Your task to perform on an android device: open chrome privacy settings Image 0: 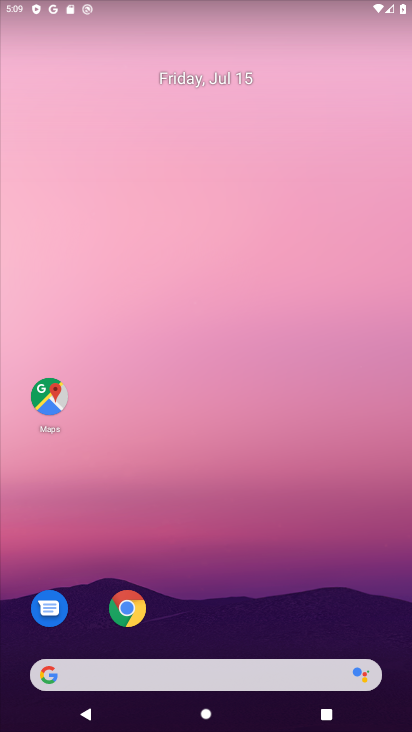
Step 0: drag from (265, 571) to (282, 21)
Your task to perform on an android device: open chrome privacy settings Image 1: 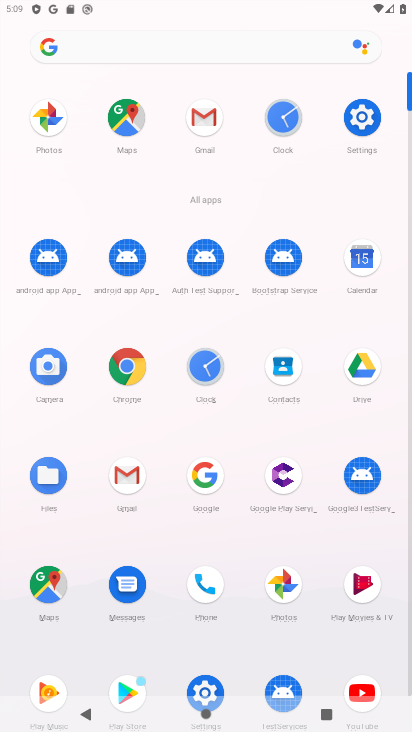
Step 1: click (133, 370)
Your task to perform on an android device: open chrome privacy settings Image 2: 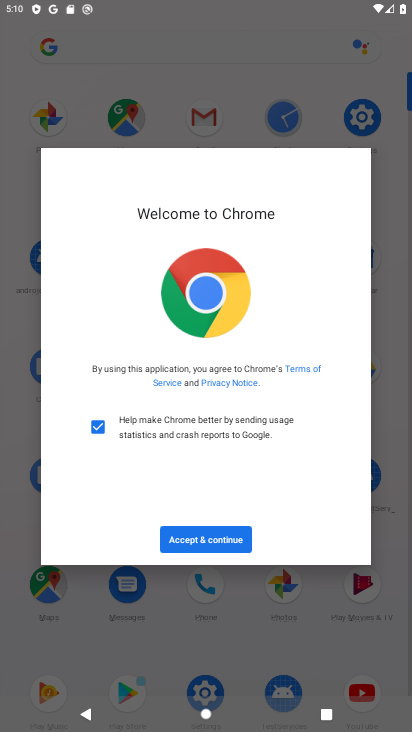
Step 2: click (235, 543)
Your task to perform on an android device: open chrome privacy settings Image 3: 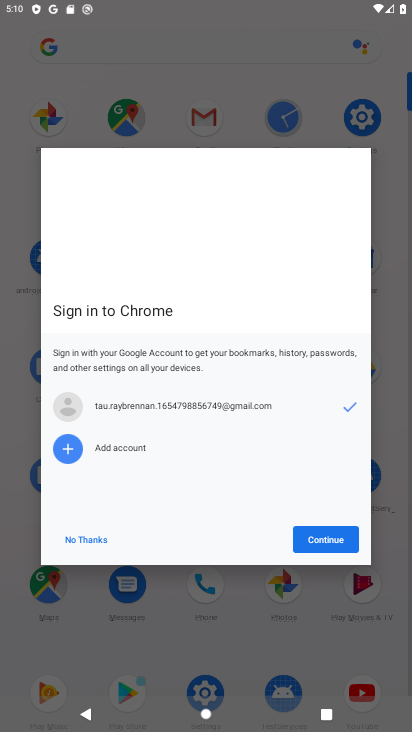
Step 3: click (73, 533)
Your task to perform on an android device: open chrome privacy settings Image 4: 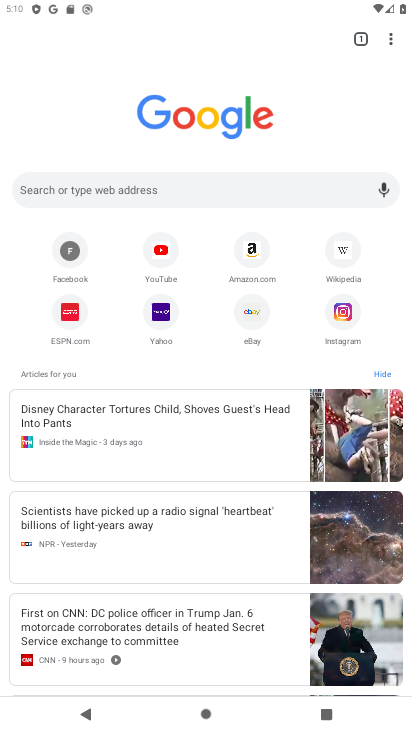
Step 4: drag from (386, 42) to (262, 319)
Your task to perform on an android device: open chrome privacy settings Image 5: 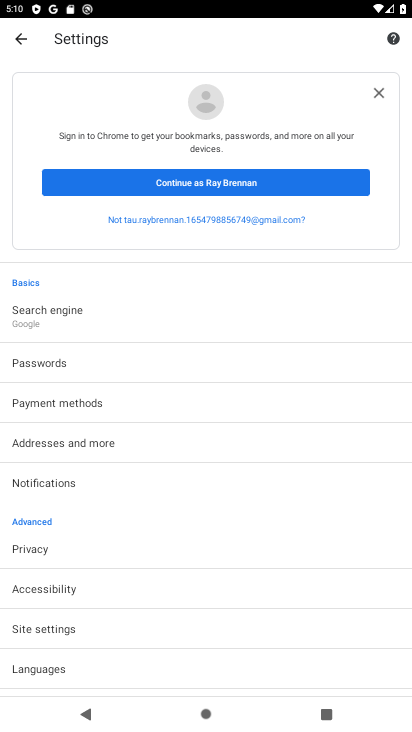
Step 5: click (27, 543)
Your task to perform on an android device: open chrome privacy settings Image 6: 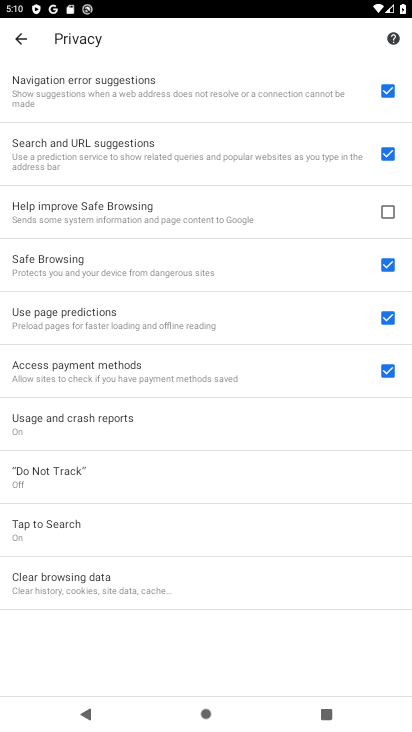
Step 6: task complete